Your task to perform on an android device: turn vacation reply on in the gmail app Image 0: 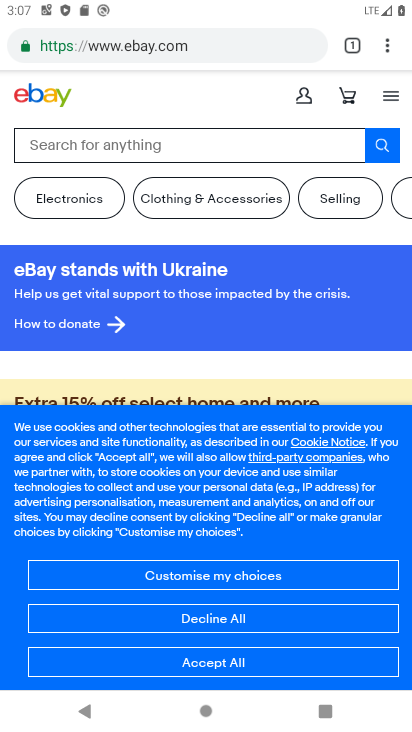
Step 0: press home button
Your task to perform on an android device: turn vacation reply on in the gmail app Image 1: 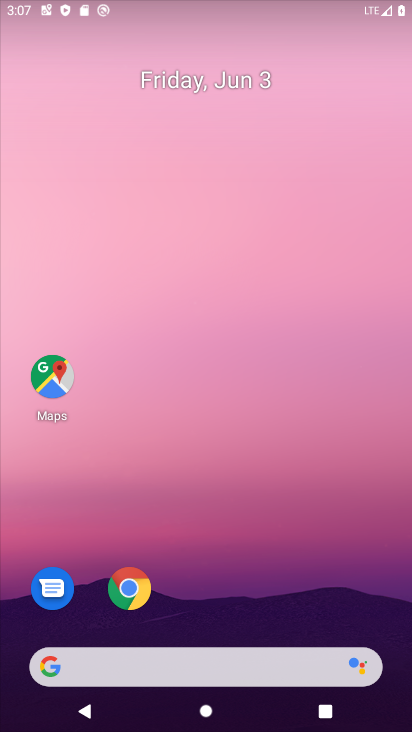
Step 1: drag from (84, 531) to (311, 125)
Your task to perform on an android device: turn vacation reply on in the gmail app Image 2: 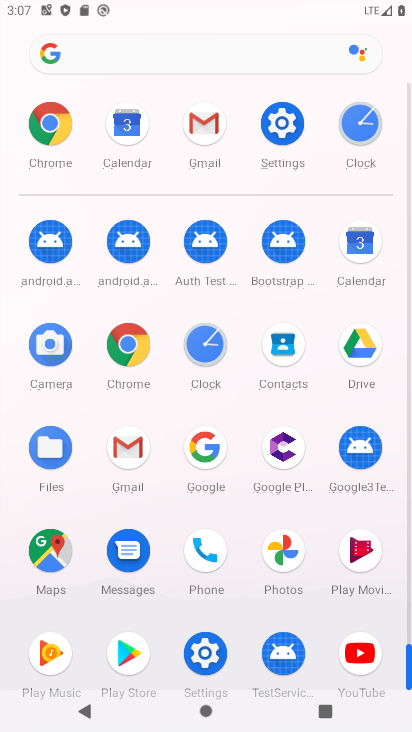
Step 2: click (211, 129)
Your task to perform on an android device: turn vacation reply on in the gmail app Image 3: 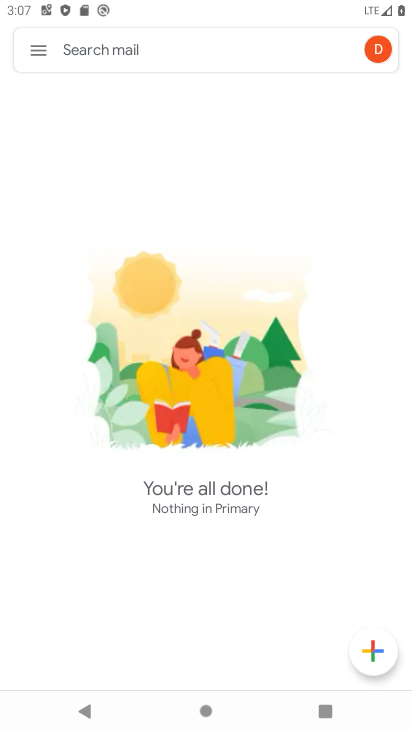
Step 3: click (33, 51)
Your task to perform on an android device: turn vacation reply on in the gmail app Image 4: 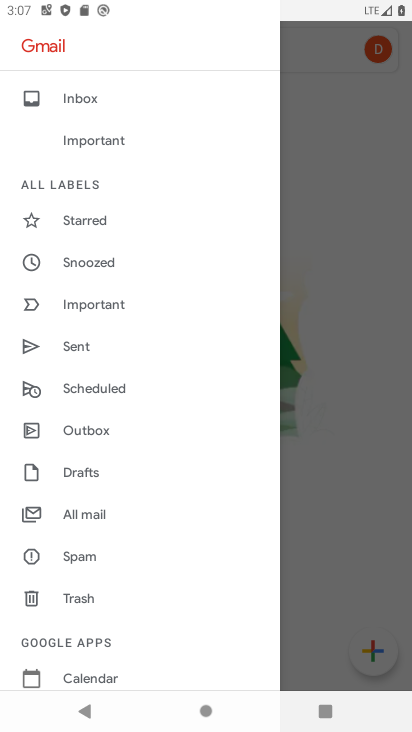
Step 4: drag from (60, 563) to (216, 31)
Your task to perform on an android device: turn vacation reply on in the gmail app Image 5: 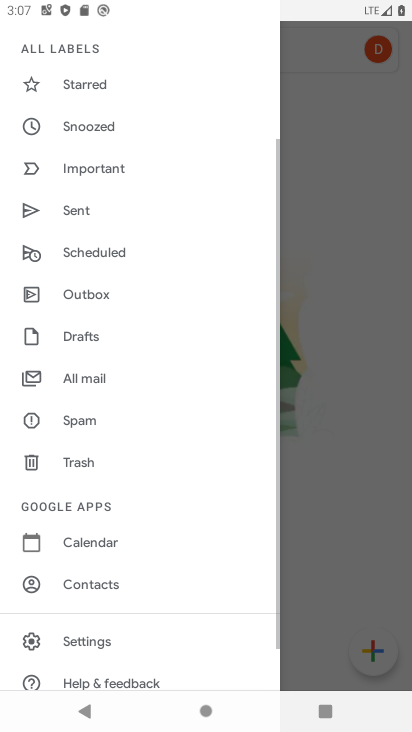
Step 5: click (59, 618)
Your task to perform on an android device: turn vacation reply on in the gmail app Image 6: 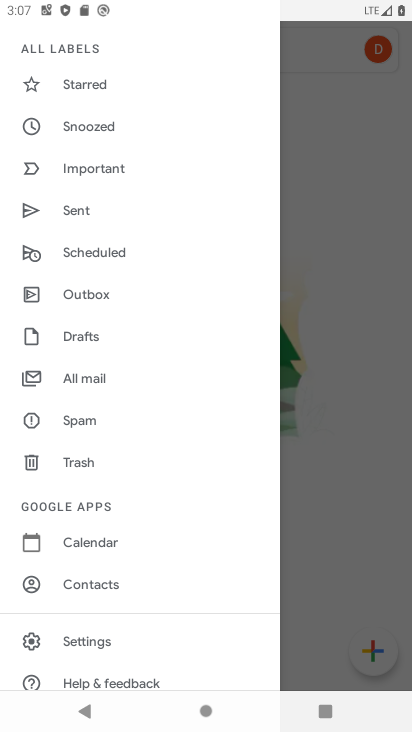
Step 6: click (95, 642)
Your task to perform on an android device: turn vacation reply on in the gmail app Image 7: 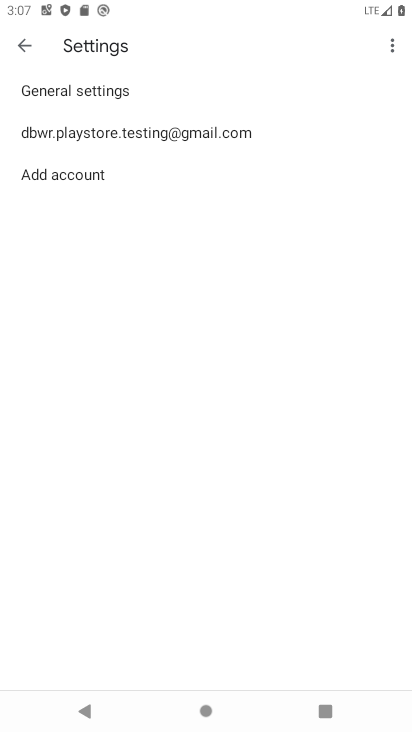
Step 7: click (123, 125)
Your task to perform on an android device: turn vacation reply on in the gmail app Image 8: 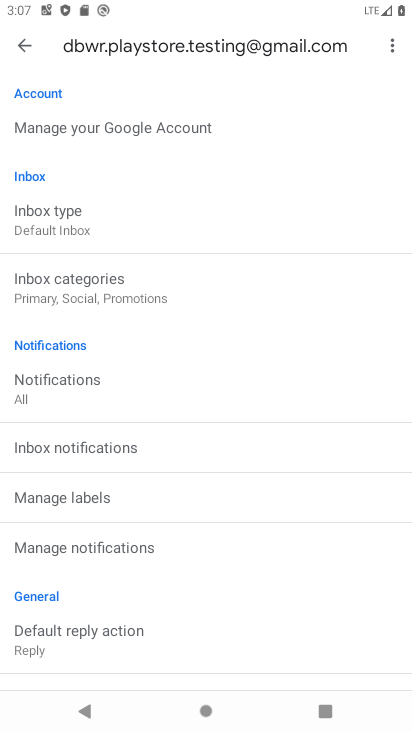
Step 8: drag from (17, 600) to (226, 128)
Your task to perform on an android device: turn vacation reply on in the gmail app Image 9: 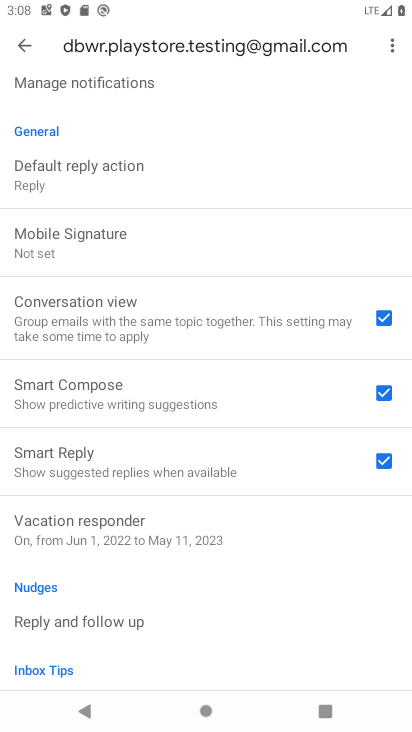
Step 9: click (108, 531)
Your task to perform on an android device: turn vacation reply on in the gmail app Image 10: 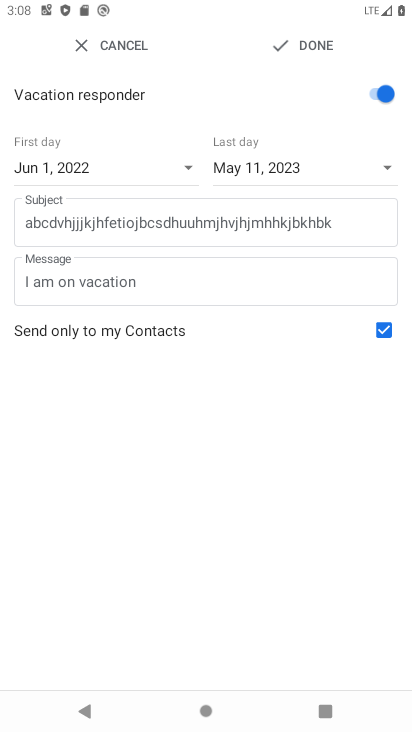
Step 10: click (304, 45)
Your task to perform on an android device: turn vacation reply on in the gmail app Image 11: 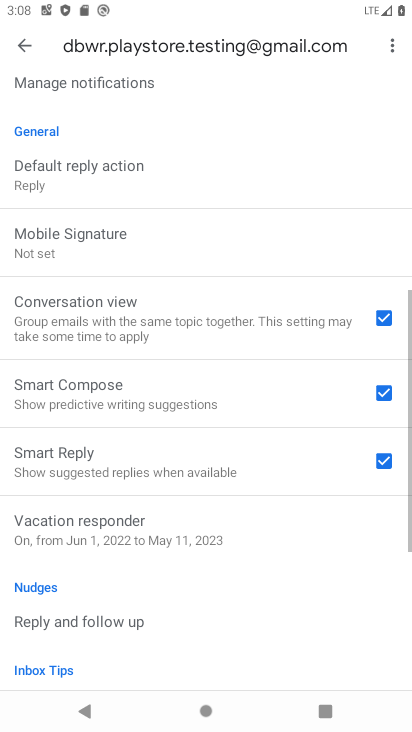
Step 11: task complete